Your task to perform on an android device: check android version Image 0: 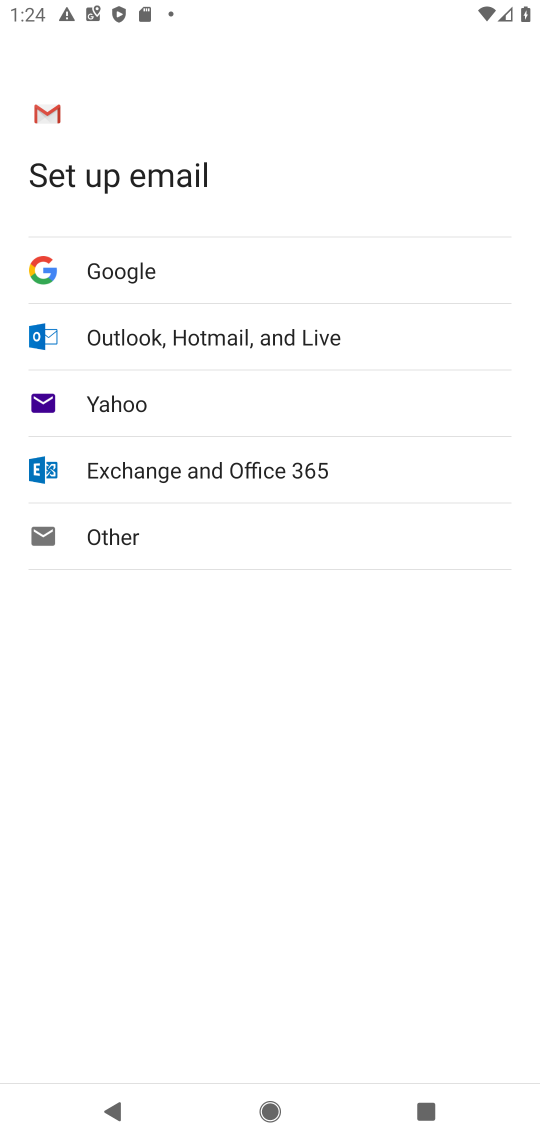
Step 0: press home button
Your task to perform on an android device: check android version Image 1: 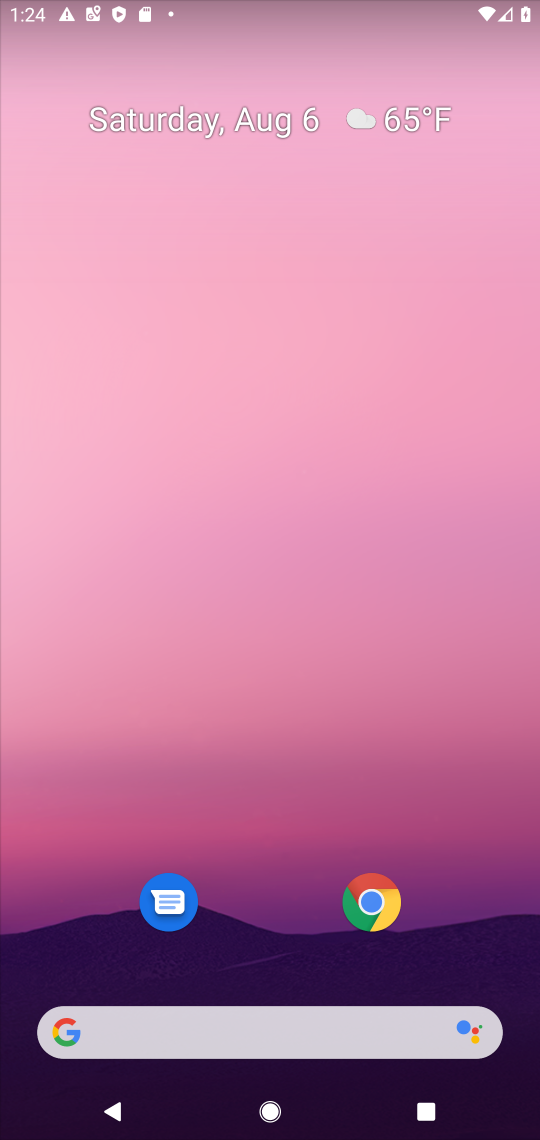
Step 1: drag from (270, 794) to (245, 12)
Your task to perform on an android device: check android version Image 2: 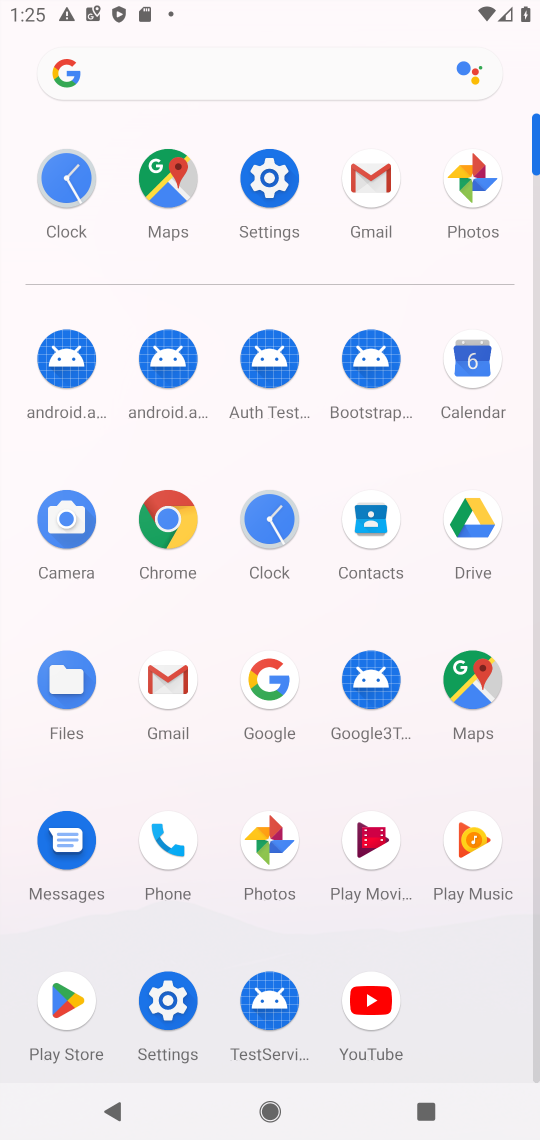
Step 2: click (279, 170)
Your task to perform on an android device: check android version Image 3: 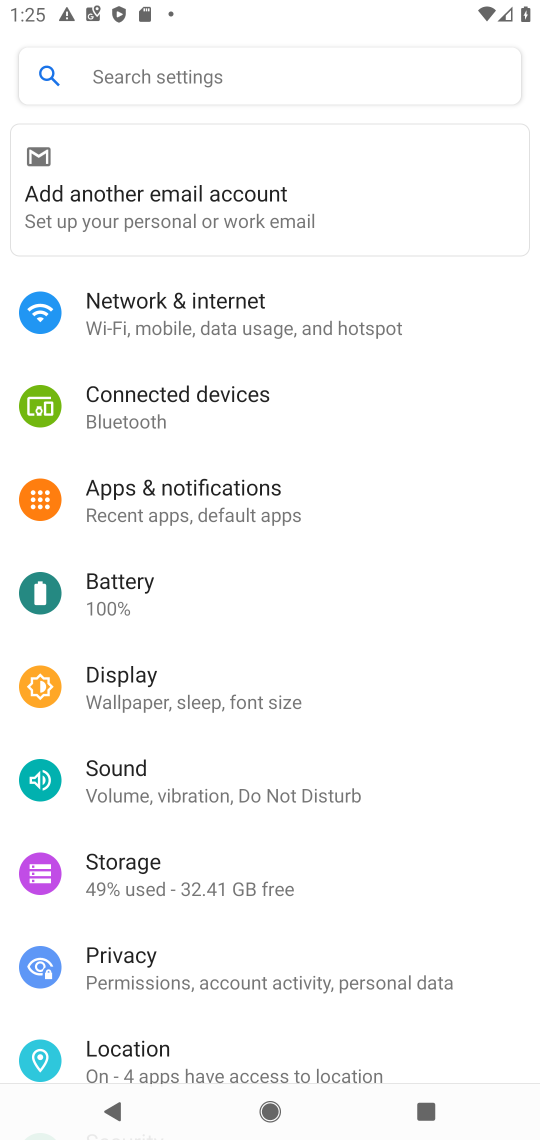
Step 3: drag from (275, 1011) to (275, 151)
Your task to perform on an android device: check android version Image 4: 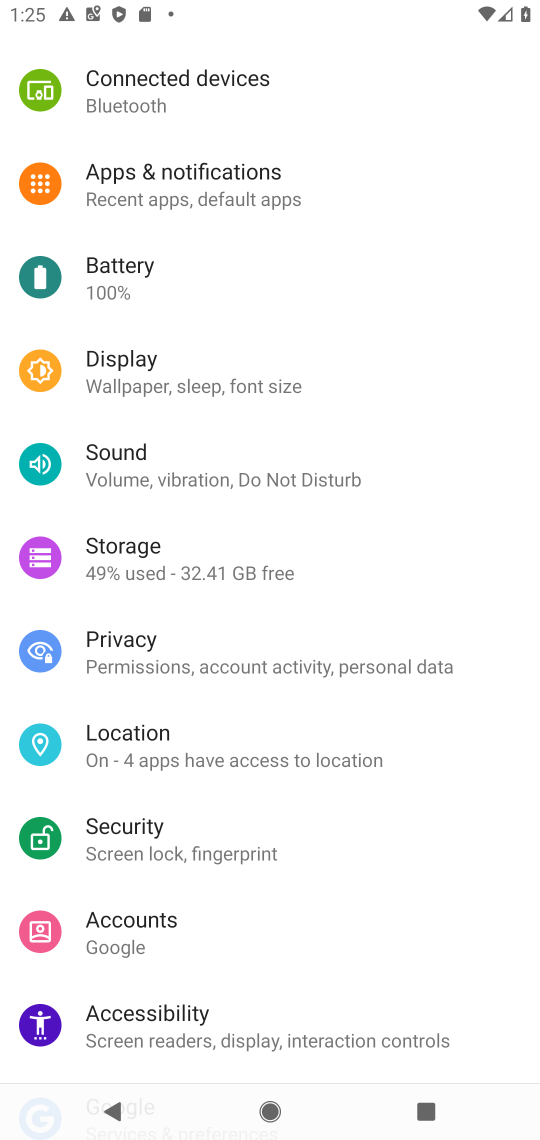
Step 4: drag from (296, 978) to (271, 378)
Your task to perform on an android device: check android version Image 5: 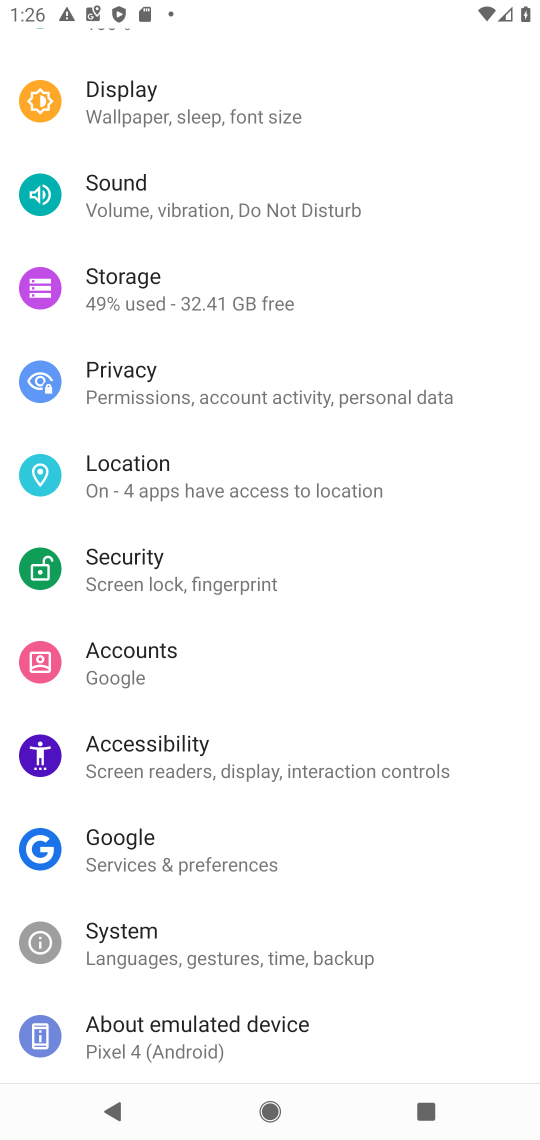
Step 5: click (149, 1010)
Your task to perform on an android device: check android version Image 6: 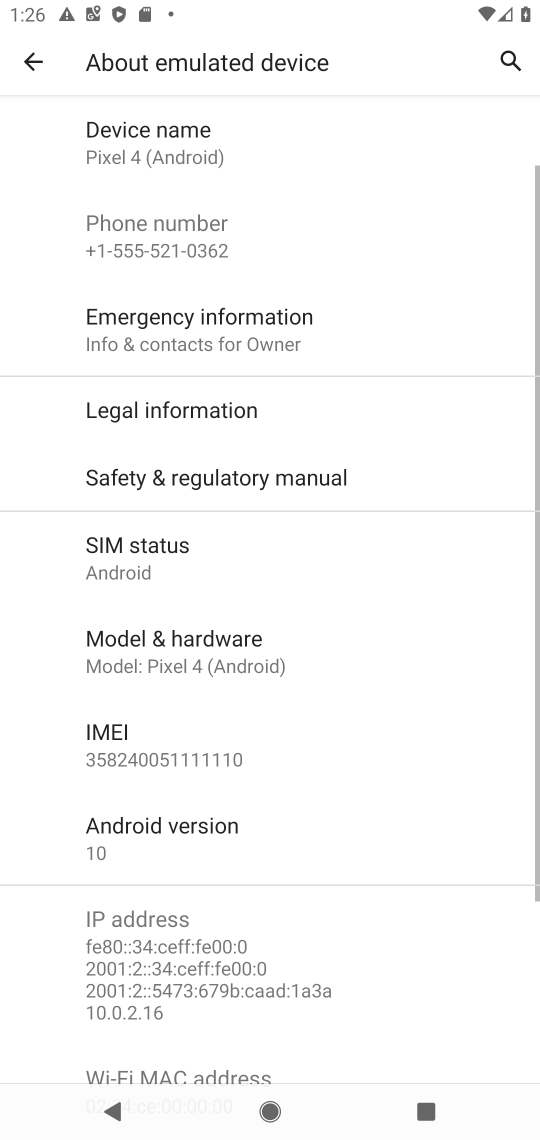
Step 6: task complete